Your task to perform on an android device: change the clock display to digital Image 0: 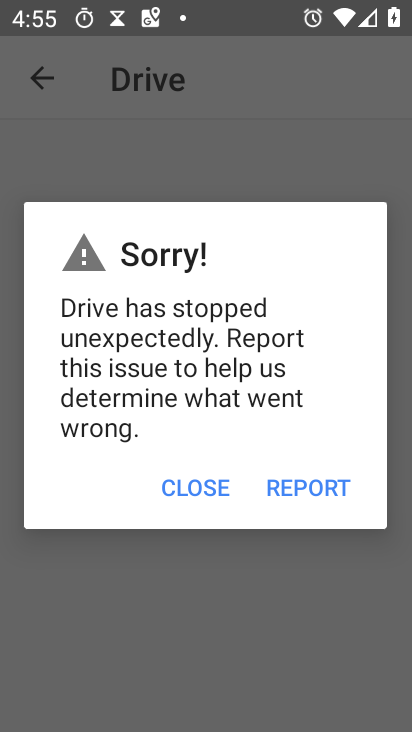
Step 0: press home button
Your task to perform on an android device: change the clock display to digital Image 1: 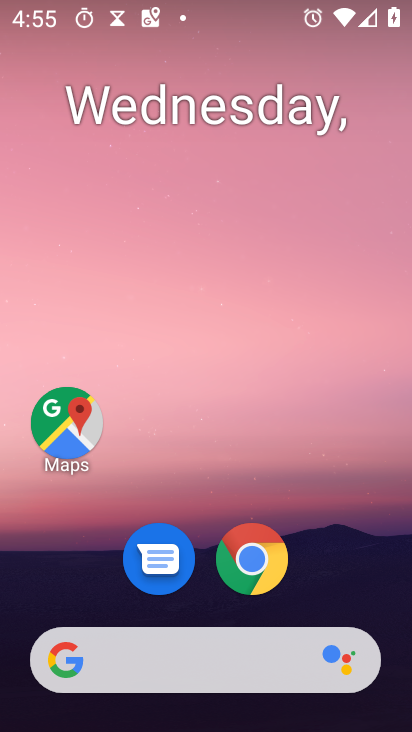
Step 1: drag from (352, 567) to (249, 121)
Your task to perform on an android device: change the clock display to digital Image 2: 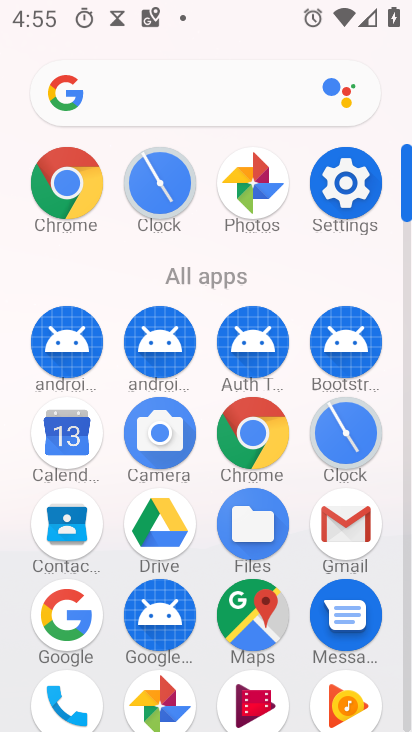
Step 2: click (178, 193)
Your task to perform on an android device: change the clock display to digital Image 3: 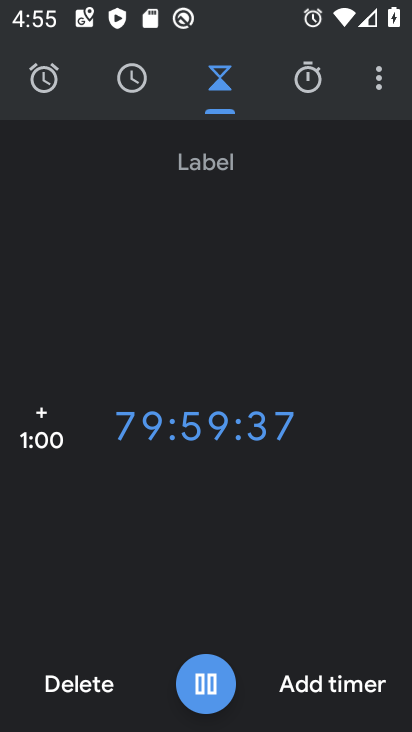
Step 3: click (379, 91)
Your task to perform on an android device: change the clock display to digital Image 4: 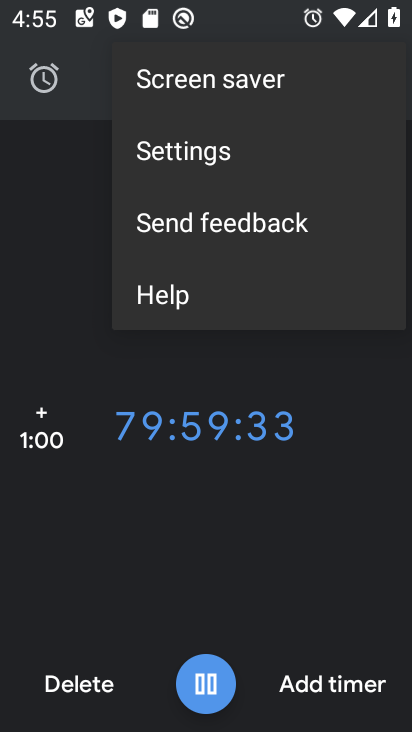
Step 4: click (316, 129)
Your task to perform on an android device: change the clock display to digital Image 5: 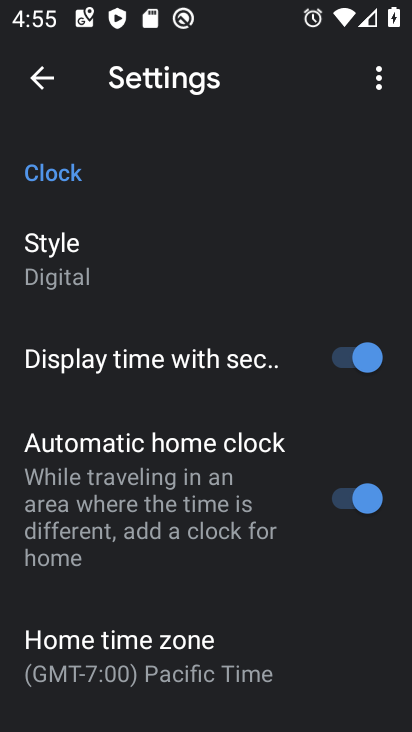
Step 5: click (245, 279)
Your task to perform on an android device: change the clock display to digital Image 6: 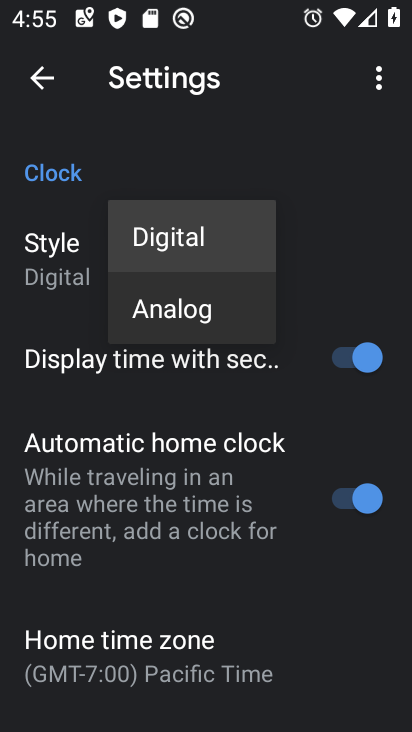
Step 6: task complete